Your task to perform on an android device: change your default location settings in chrome Image 0: 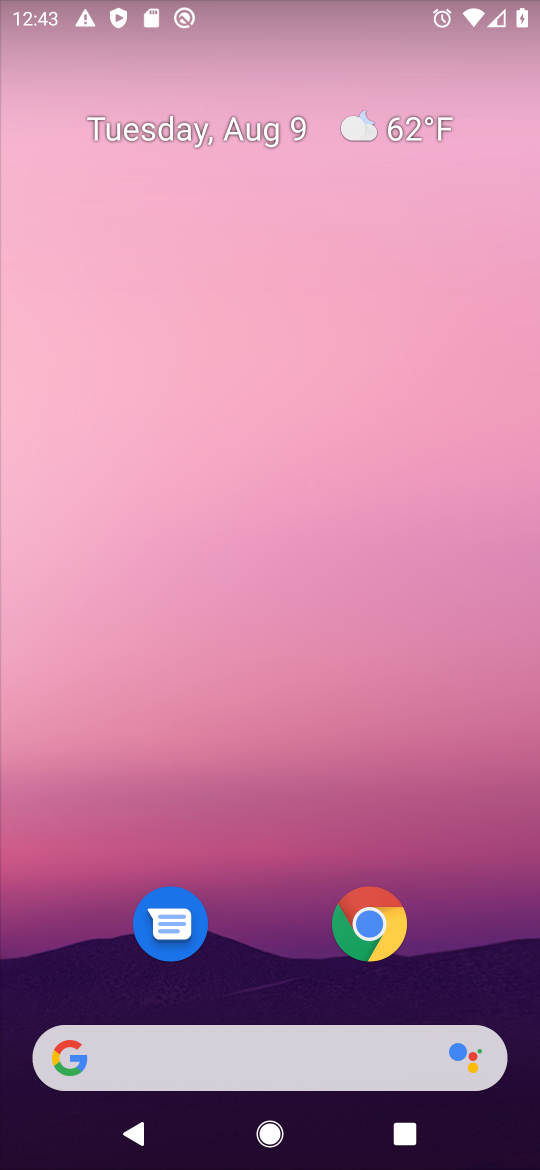
Step 0: drag from (313, 1000) to (222, 100)
Your task to perform on an android device: change your default location settings in chrome Image 1: 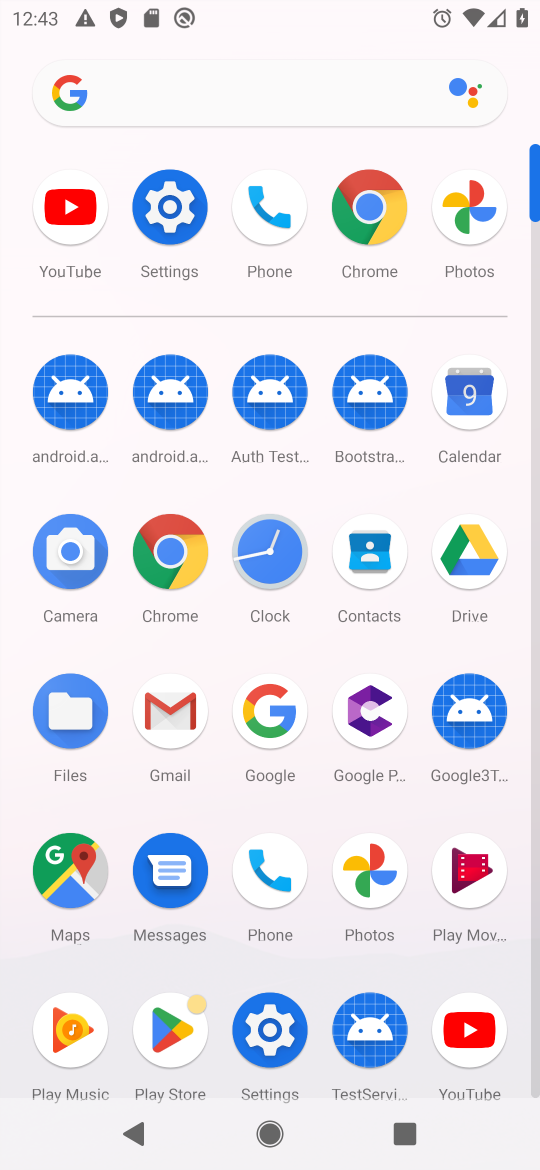
Step 1: click (338, 255)
Your task to perform on an android device: change your default location settings in chrome Image 2: 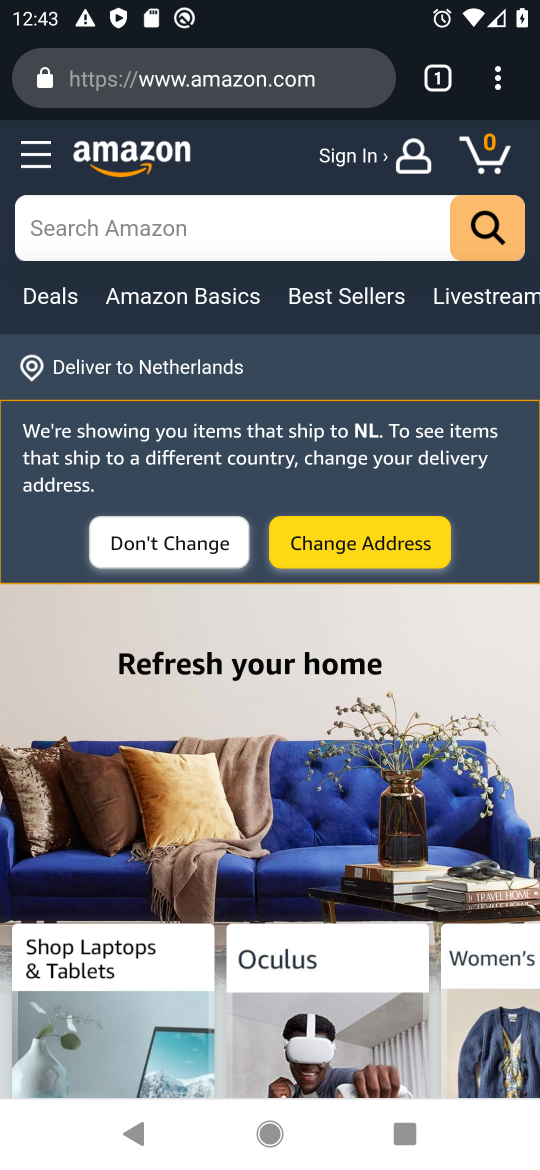
Step 2: click (513, 61)
Your task to perform on an android device: change your default location settings in chrome Image 3: 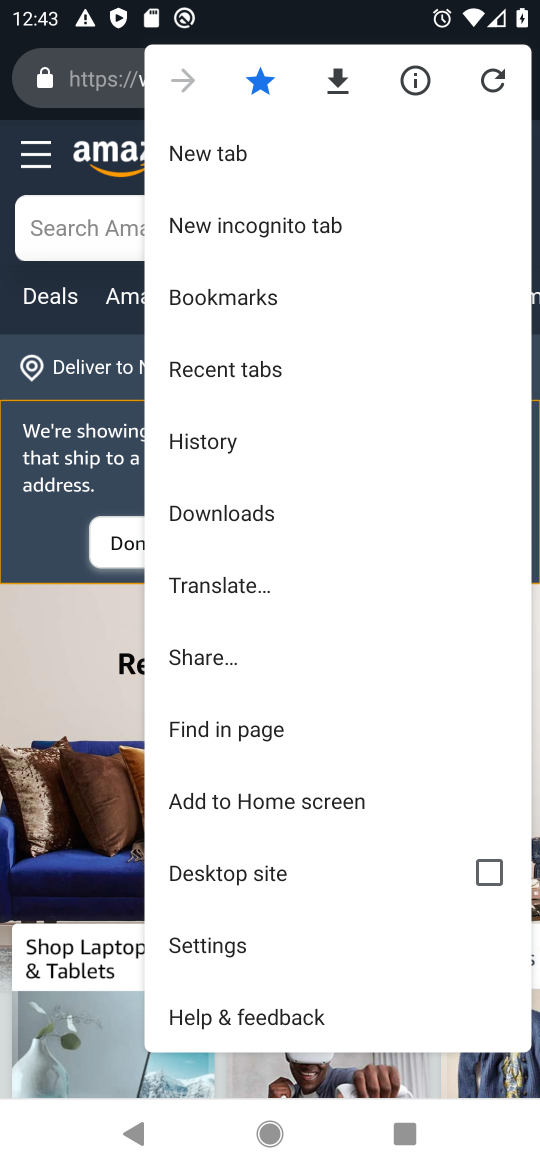
Step 3: click (287, 962)
Your task to perform on an android device: change your default location settings in chrome Image 4: 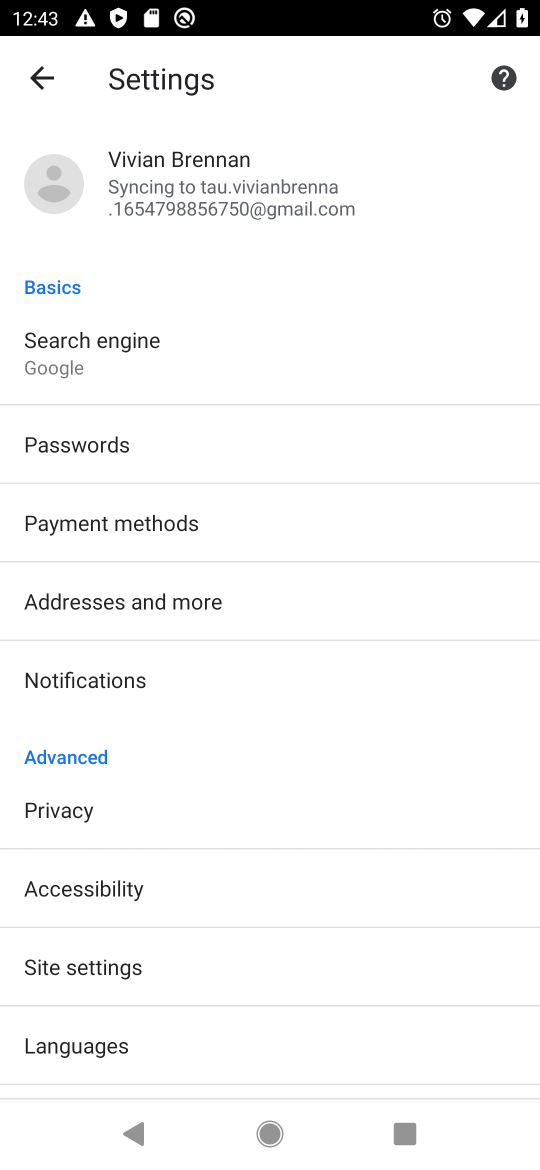
Step 4: click (137, 578)
Your task to perform on an android device: change your default location settings in chrome Image 5: 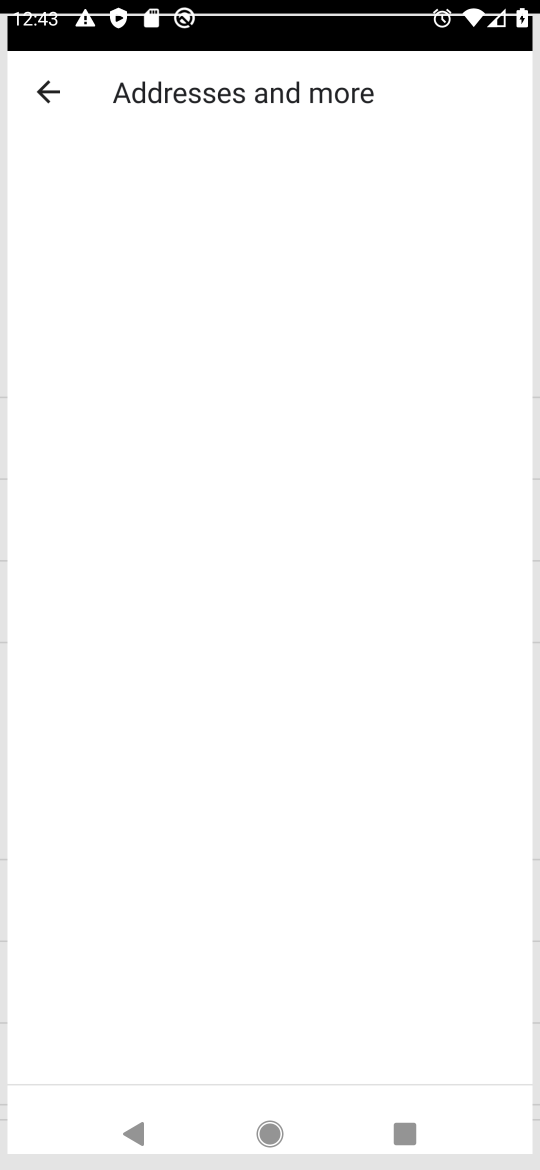
Step 5: task complete